Your task to perform on an android device: Open notification settings Image 0: 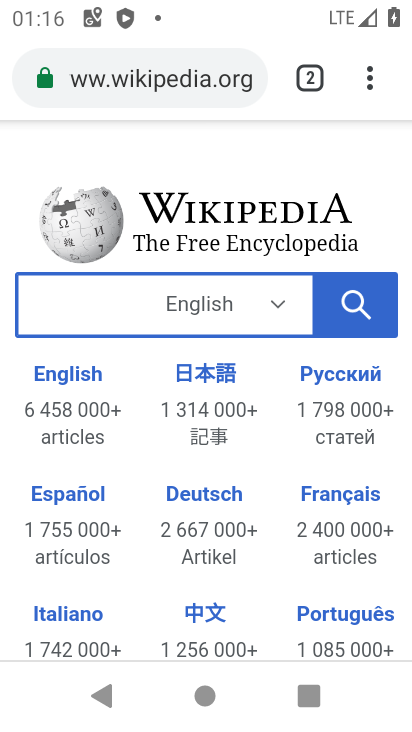
Step 0: press home button
Your task to perform on an android device: Open notification settings Image 1: 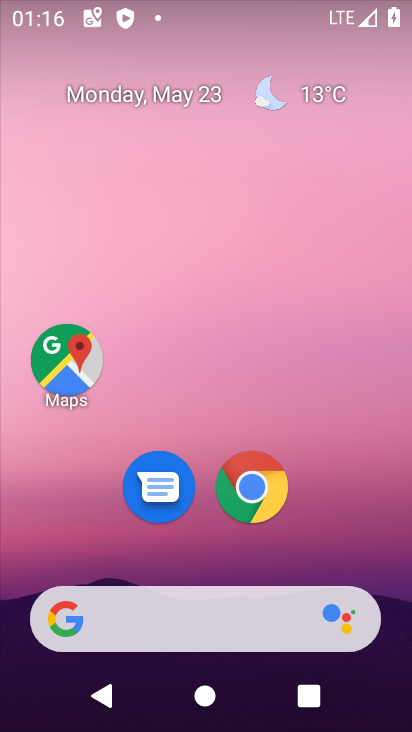
Step 1: drag from (393, 622) to (356, 14)
Your task to perform on an android device: Open notification settings Image 2: 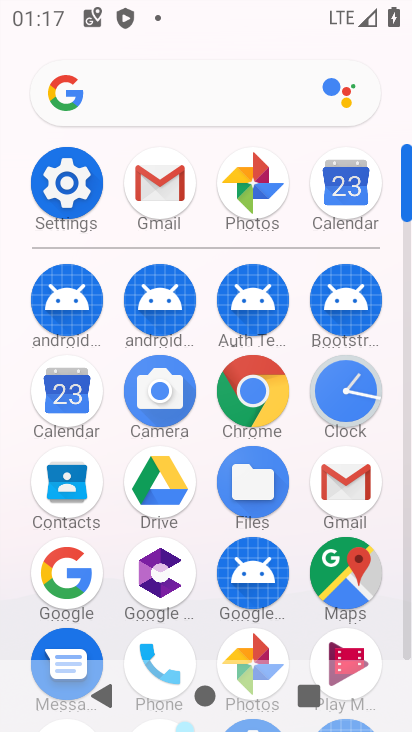
Step 2: click (411, 642)
Your task to perform on an android device: Open notification settings Image 3: 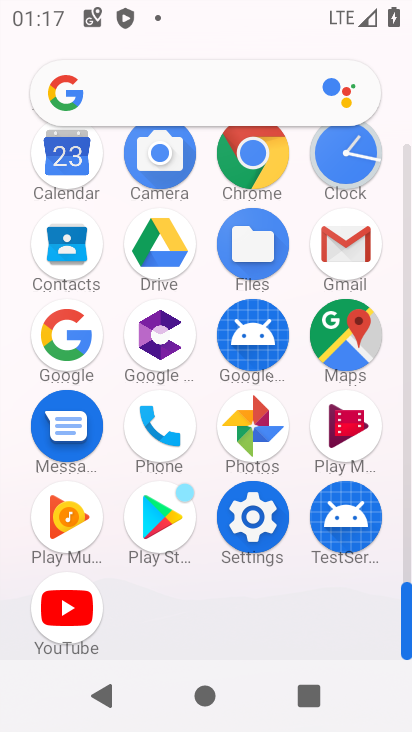
Step 3: click (253, 517)
Your task to perform on an android device: Open notification settings Image 4: 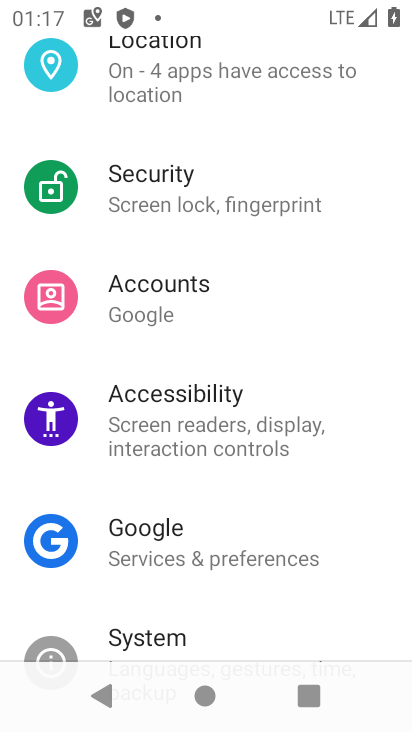
Step 4: drag from (368, 108) to (319, 504)
Your task to perform on an android device: Open notification settings Image 5: 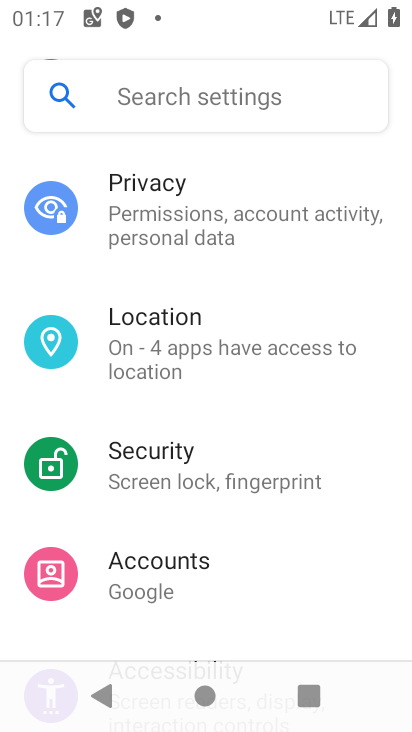
Step 5: drag from (352, 227) to (330, 580)
Your task to perform on an android device: Open notification settings Image 6: 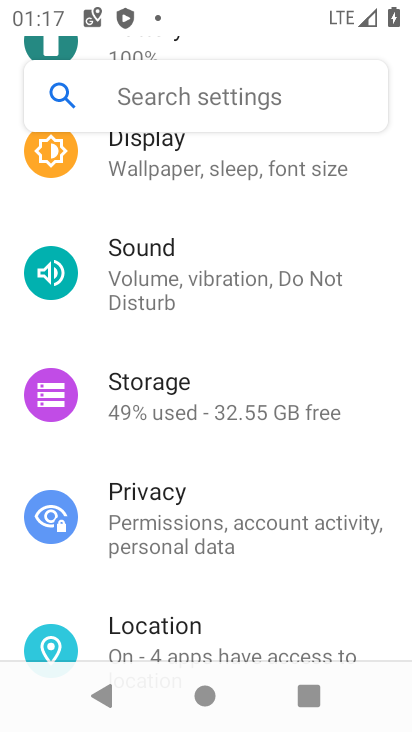
Step 6: drag from (344, 232) to (346, 612)
Your task to perform on an android device: Open notification settings Image 7: 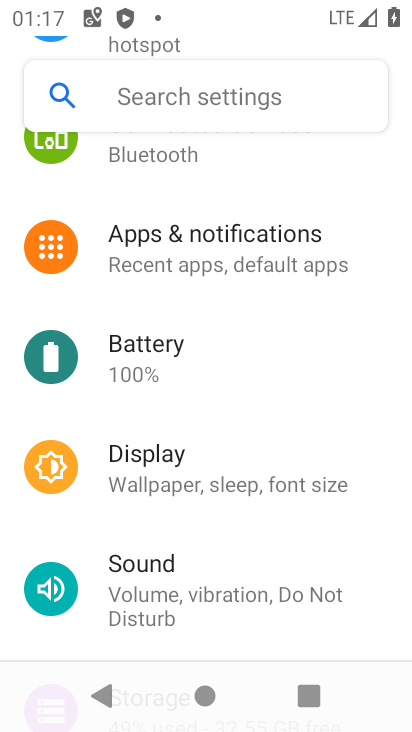
Step 7: click (171, 235)
Your task to perform on an android device: Open notification settings Image 8: 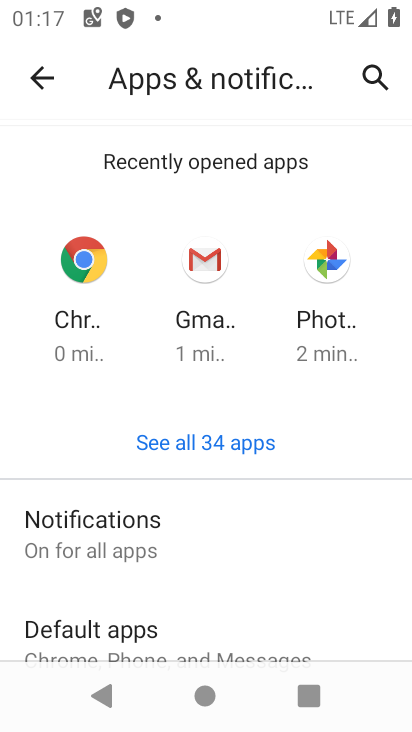
Step 8: click (48, 520)
Your task to perform on an android device: Open notification settings Image 9: 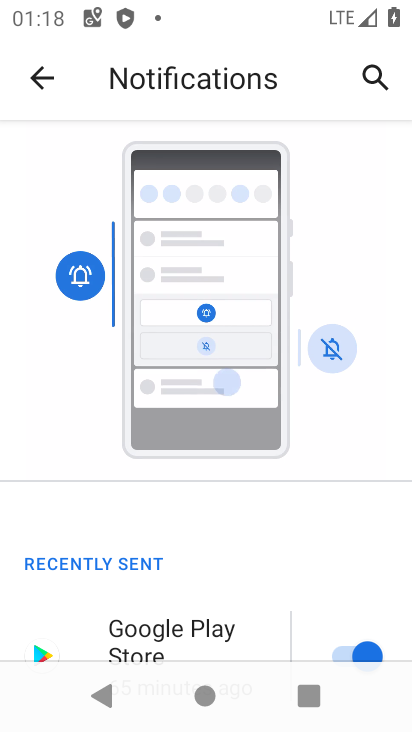
Step 9: drag from (282, 618) to (209, 165)
Your task to perform on an android device: Open notification settings Image 10: 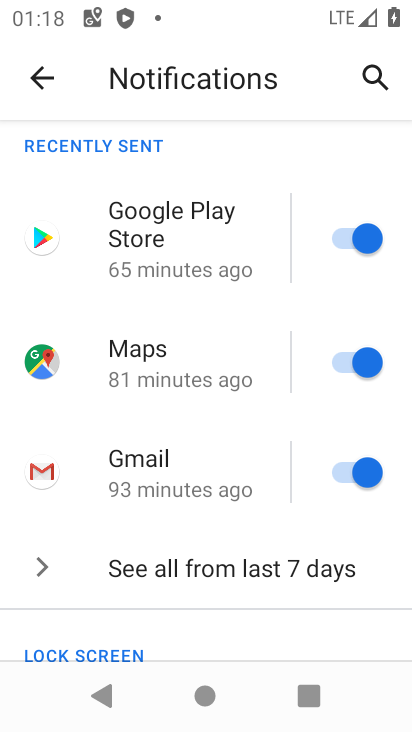
Step 10: drag from (258, 620) to (270, 194)
Your task to perform on an android device: Open notification settings Image 11: 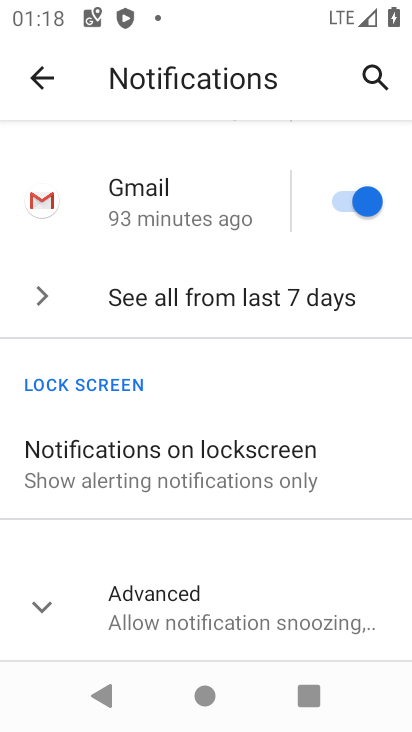
Step 11: click (48, 605)
Your task to perform on an android device: Open notification settings Image 12: 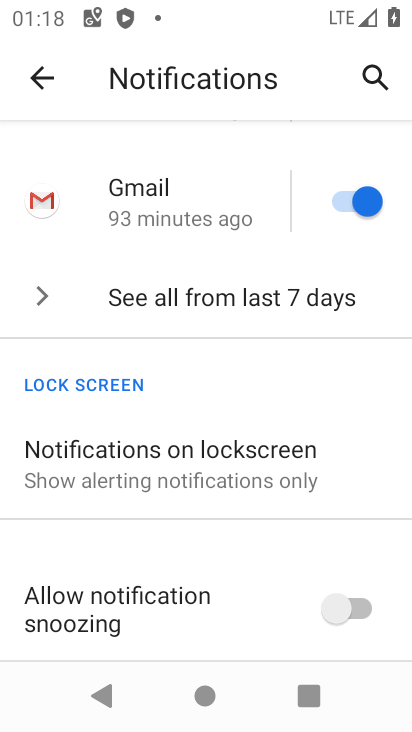
Step 12: task complete